Your task to perform on an android device: How do I get to the nearest Subway? Image 0: 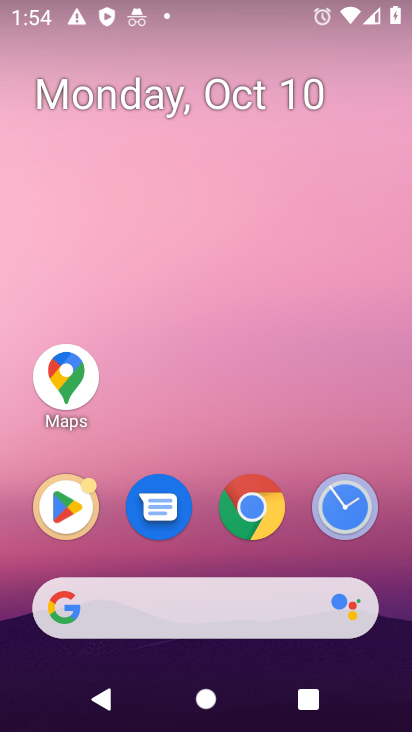
Step 0: press home button
Your task to perform on an android device: How do I get to the nearest Subway? Image 1: 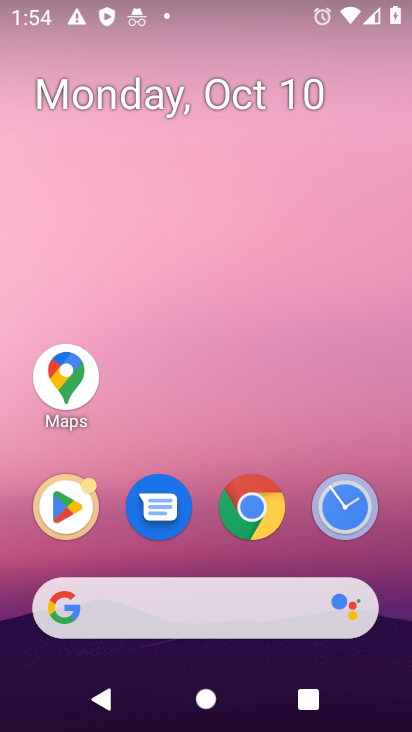
Step 1: click (270, 608)
Your task to perform on an android device: How do I get to the nearest Subway? Image 2: 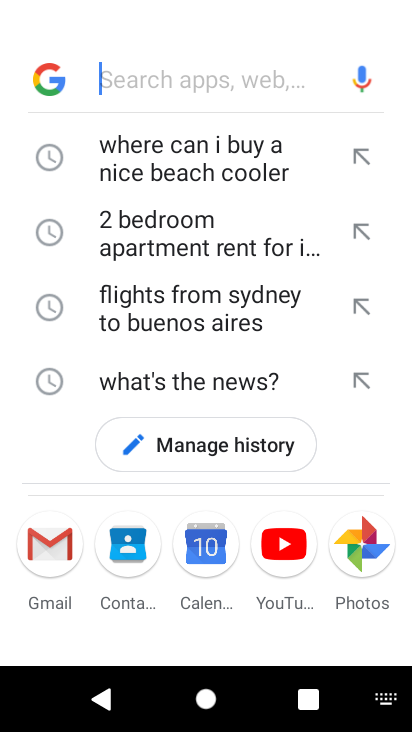
Step 2: type "How do I get to the nearest Subway"
Your task to perform on an android device: How do I get to the nearest Subway? Image 3: 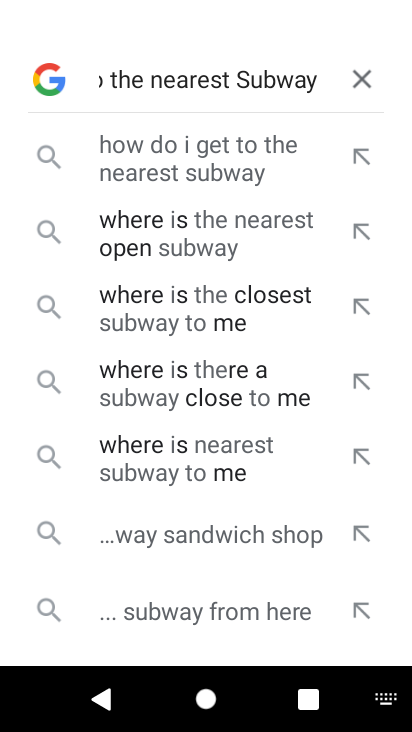
Step 3: press enter
Your task to perform on an android device: How do I get to the nearest Subway? Image 4: 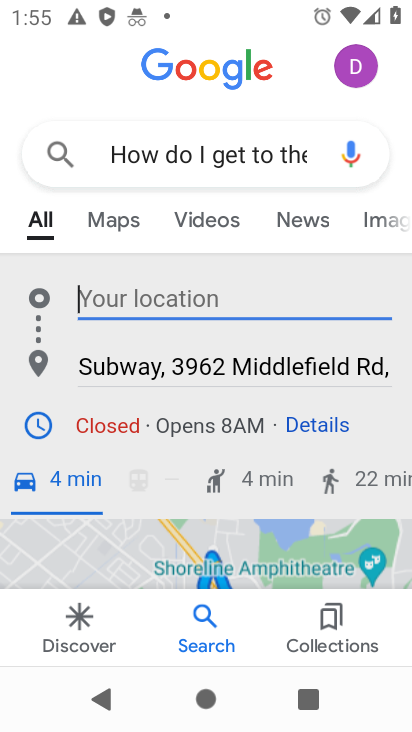
Step 4: task complete